Your task to perform on an android device: open device folders in google photos Image 0: 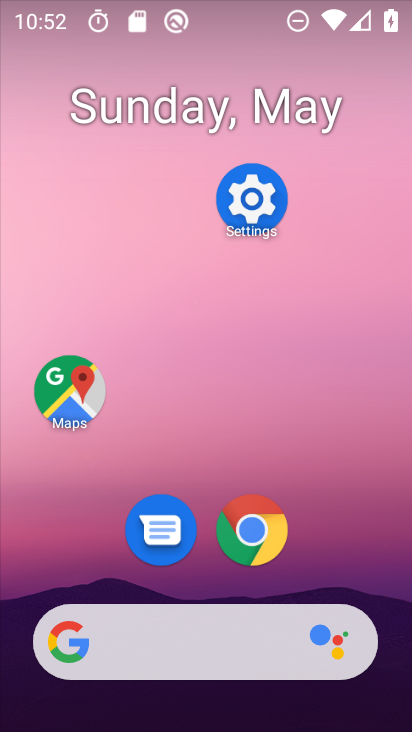
Step 0: drag from (257, 685) to (213, 69)
Your task to perform on an android device: open device folders in google photos Image 1: 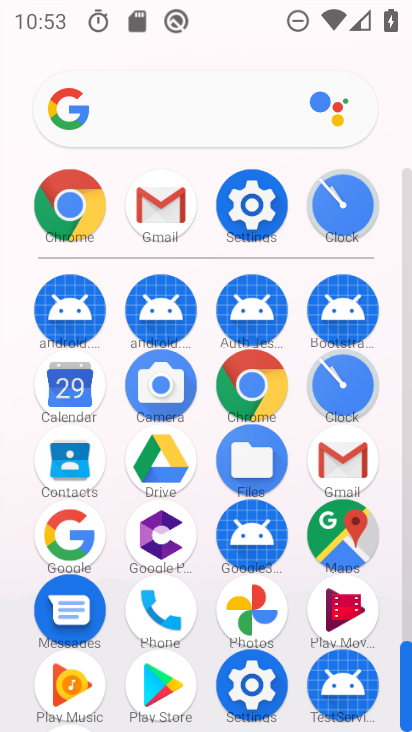
Step 1: click (232, 612)
Your task to perform on an android device: open device folders in google photos Image 2: 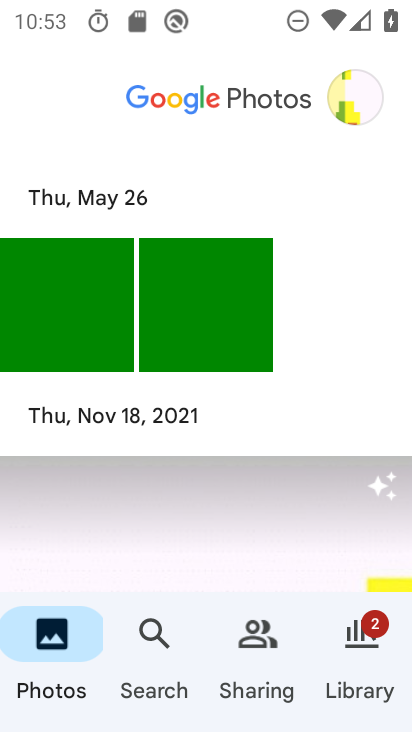
Step 2: click (329, 96)
Your task to perform on an android device: open device folders in google photos Image 3: 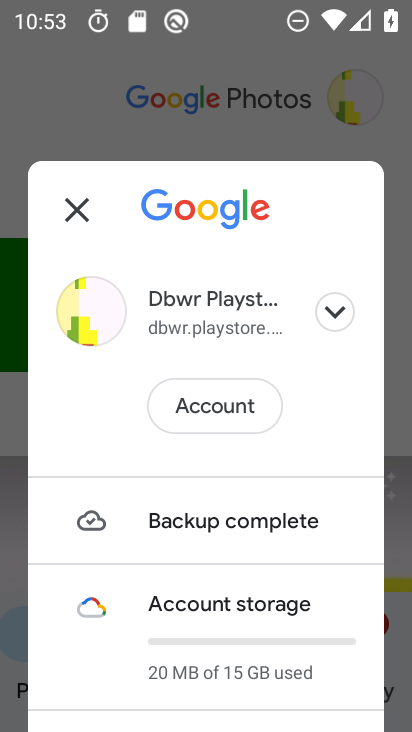
Step 3: click (103, 202)
Your task to perform on an android device: open device folders in google photos Image 4: 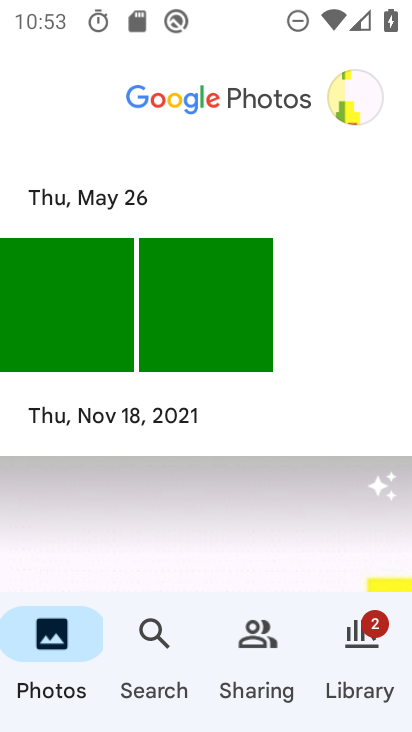
Step 4: click (161, 646)
Your task to perform on an android device: open device folders in google photos Image 5: 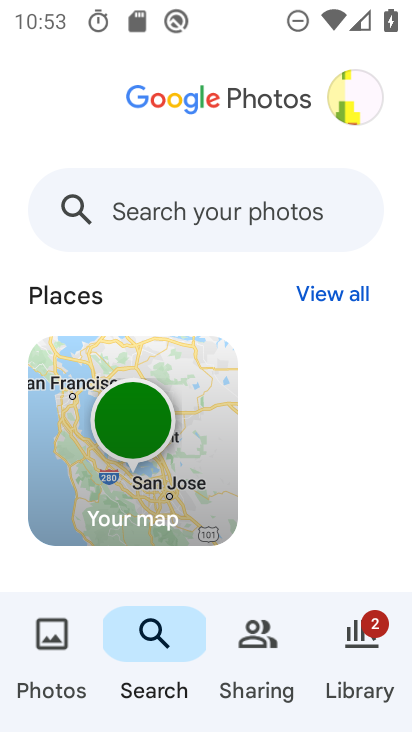
Step 5: click (150, 201)
Your task to perform on an android device: open device folders in google photos Image 6: 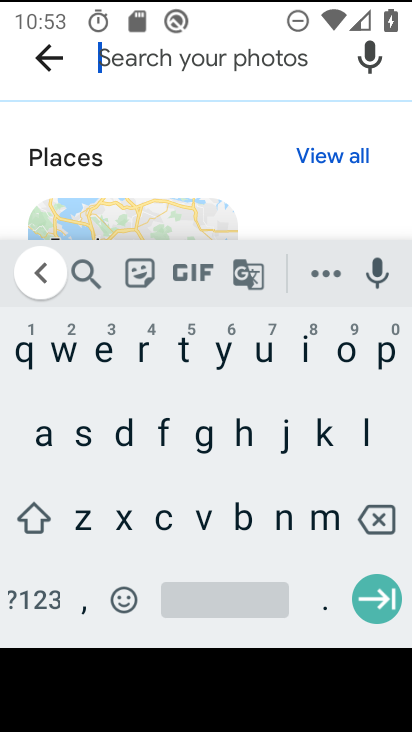
Step 6: click (117, 438)
Your task to perform on an android device: open device folders in google photos Image 7: 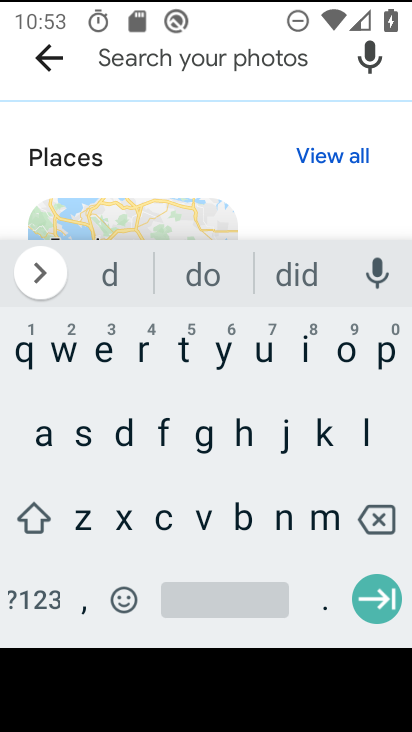
Step 7: click (113, 338)
Your task to perform on an android device: open device folders in google photos Image 8: 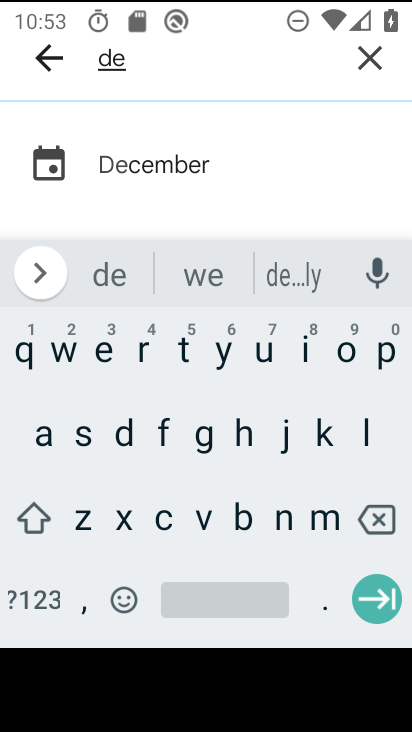
Step 8: click (202, 520)
Your task to perform on an android device: open device folders in google photos Image 9: 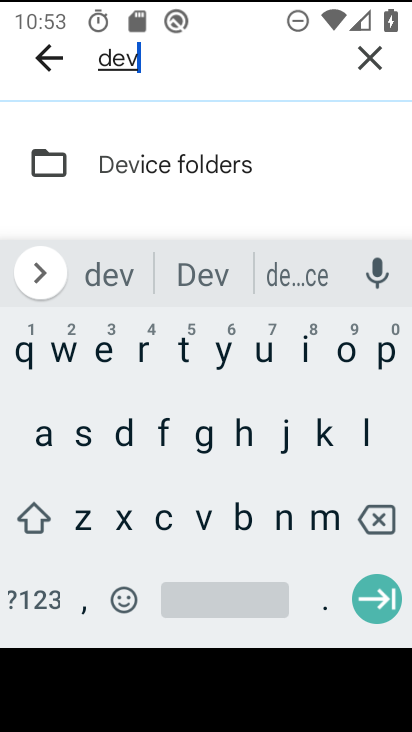
Step 9: click (218, 168)
Your task to perform on an android device: open device folders in google photos Image 10: 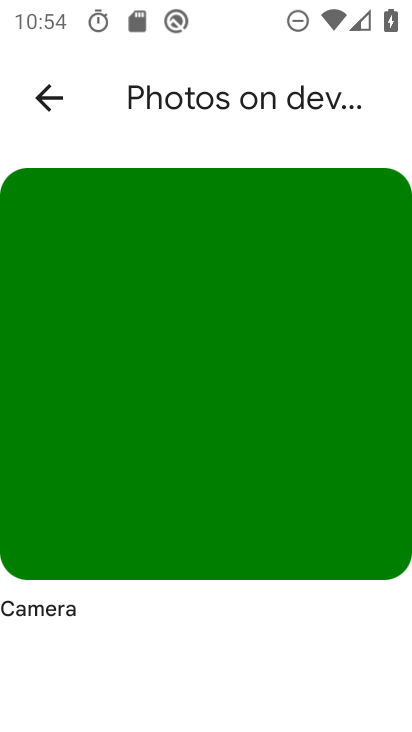
Step 10: task complete